Your task to perform on an android device: change the upload size in google photos Image 0: 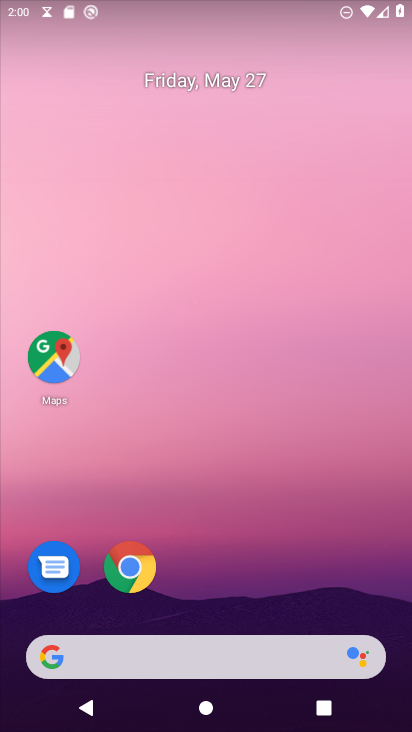
Step 0: drag from (224, 627) to (217, 158)
Your task to perform on an android device: change the upload size in google photos Image 1: 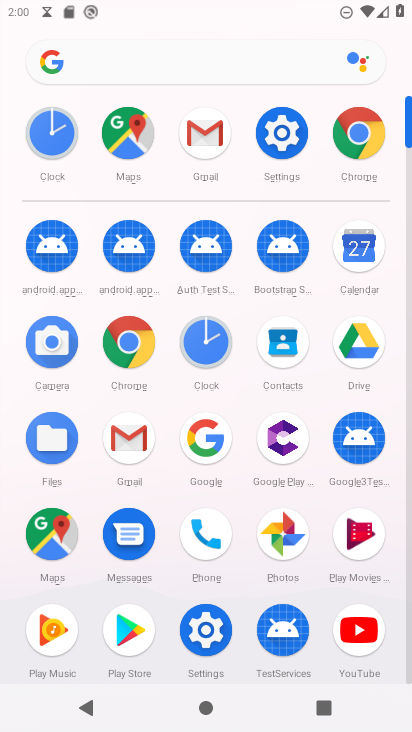
Step 1: click (289, 521)
Your task to perform on an android device: change the upload size in google photos Image 2: 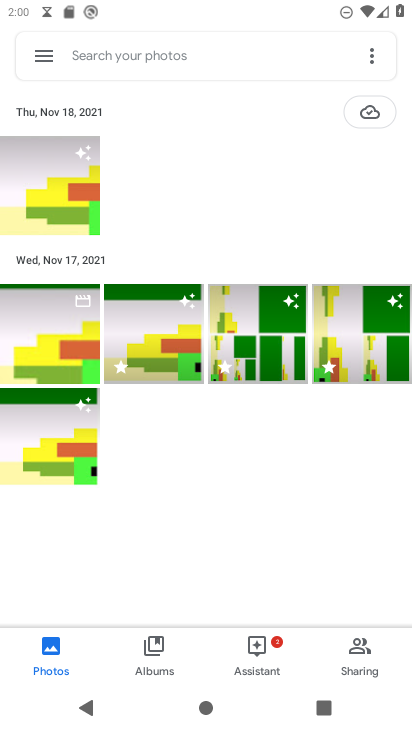
Step 2: click (40, 54)
Your task to perform on an android device: change the upload size in google photos Image 3: 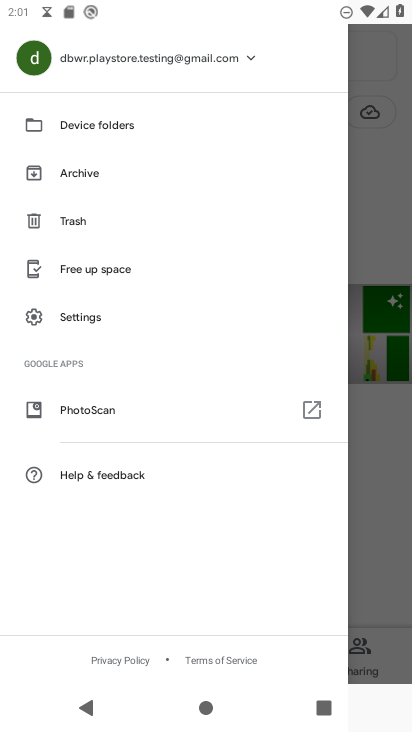
Step 3: click (89, 323)
Your task to perform on an android device: change the upload size in google photos Image 4: 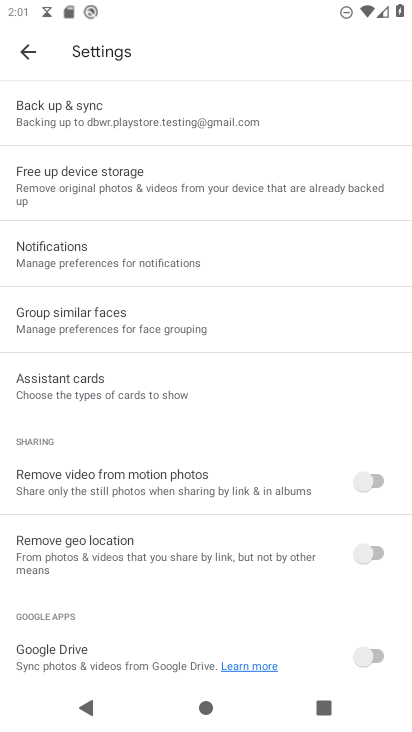
Step 4: click (162, 101)
Your task to perform on an android device: change the upload size in google photos Image 5: 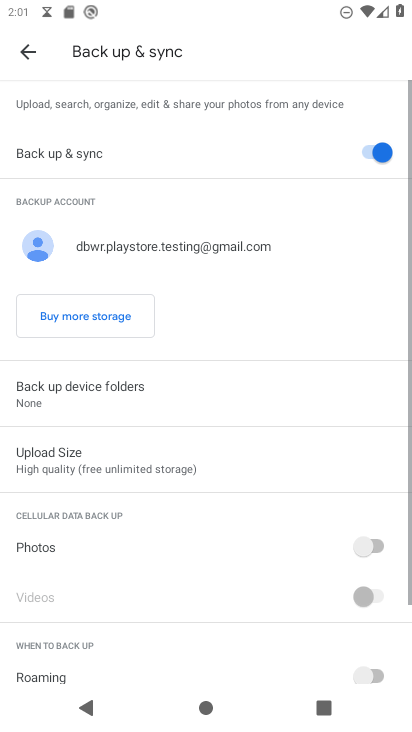
Step 5: click (162, 455)
Your task to perform on an android device: change the upload size in google photos Image 6: 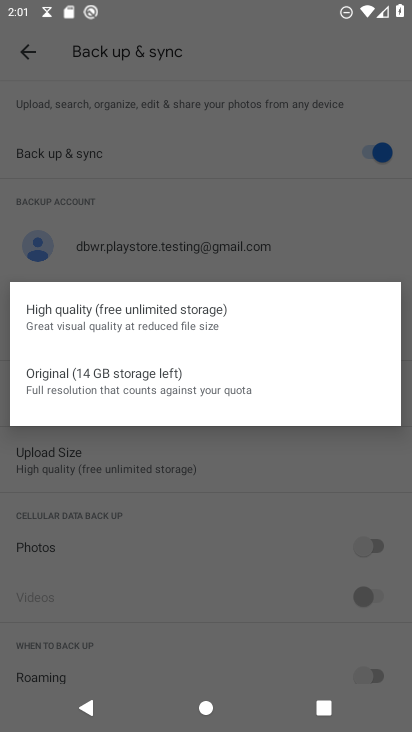
Step 6: click (155, 393)
Your task to perform on an android device: change the upload size in google photos Image 7: 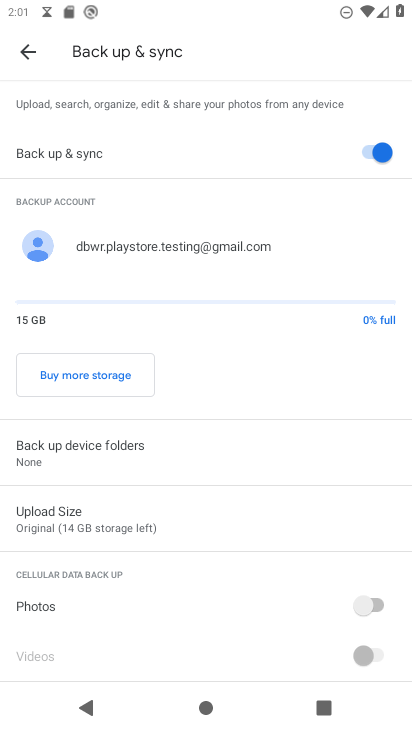
Step 7: task complete